Your task to perform on an android device: Show me recent news Image 0: 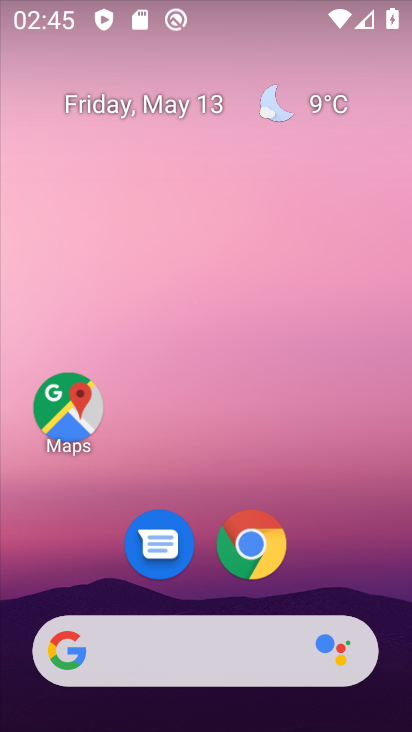
Step 0: drag from (326, 536) to (249, 34)
Your task to perform on an android device: Show me recent news Image 1: 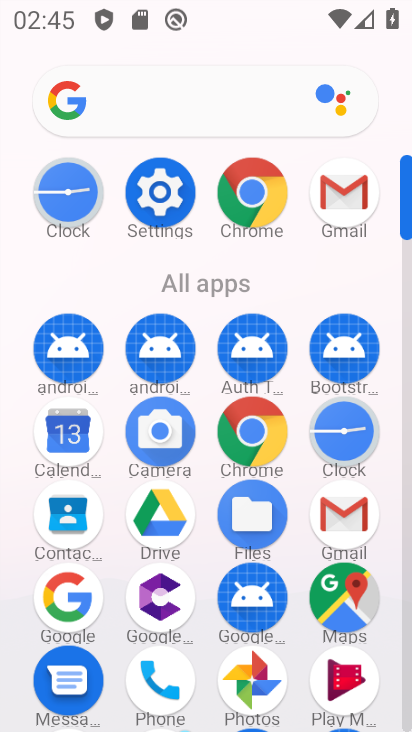
Step 1: drag from (18, 549) to (24, 266)
Your task to perform on an android device: Show me recent news Image 2: 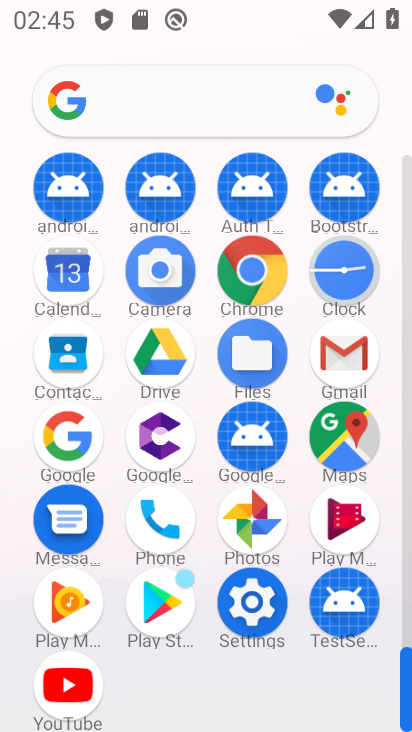
Step 2: click (252, 256)
Your task to perform on an android device: Show me recent news Image 3: 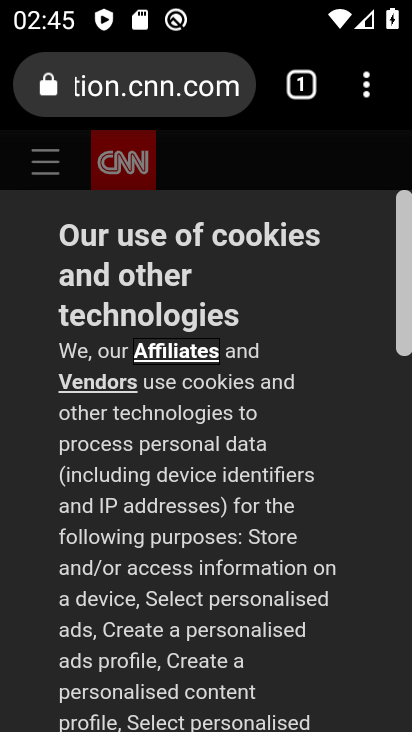
Step 3: click (158, 77)
Your task to perform on an android device: Show me recent news Image 4: 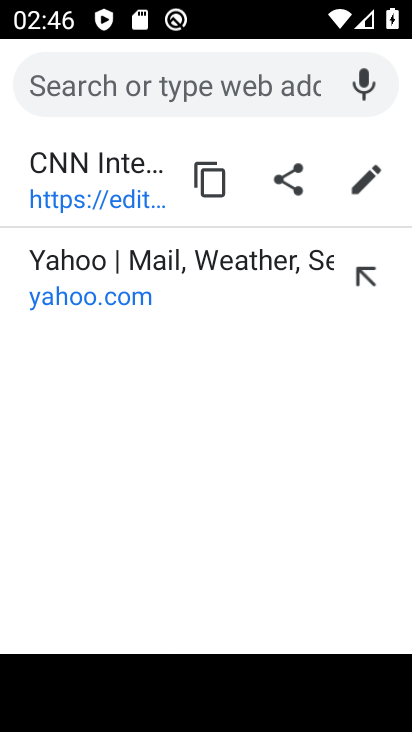
Step 4: type "Show me recent news"
Your task to perform on an android device: Show me recent news Image 5: 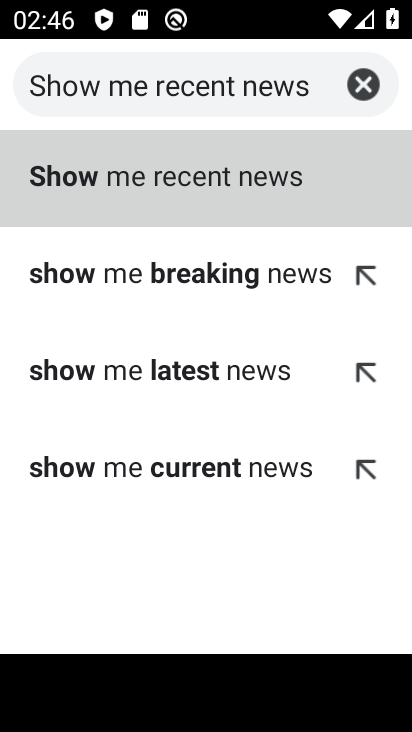
Step 5: click (165, 183)
Your task to perform on an android device: Show me recent news Image 6: 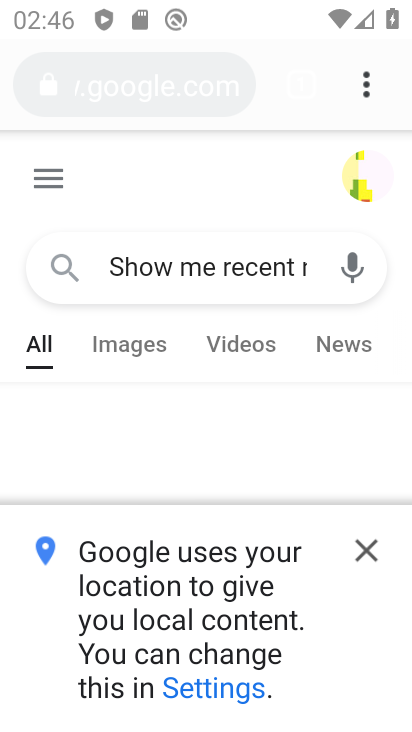
Step 6: click (358, 543)
Your task to perform on an android device: Show me recent news Image 7: 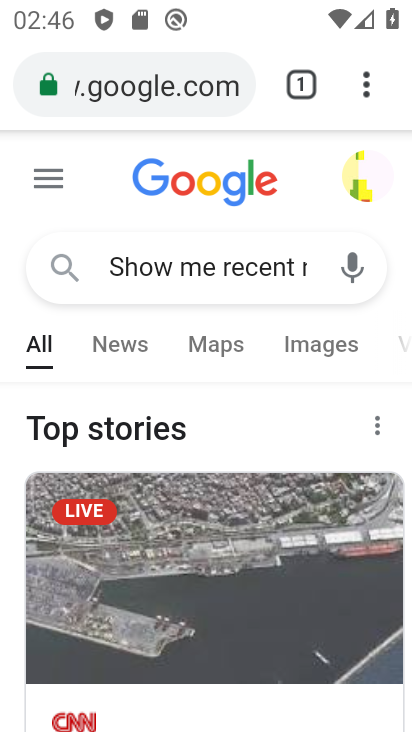
Step 7: task complete